Your task to perform on an android device: empty trash in google photos Image 0: 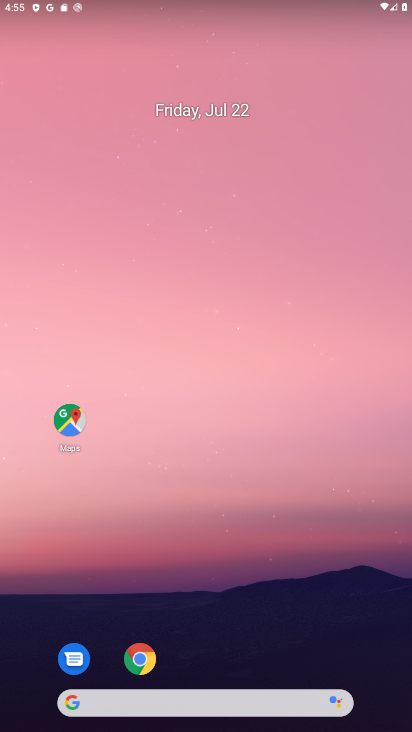
Step 0: press home button
Your task to perform on an android device: empty trash in google photos Image 1: 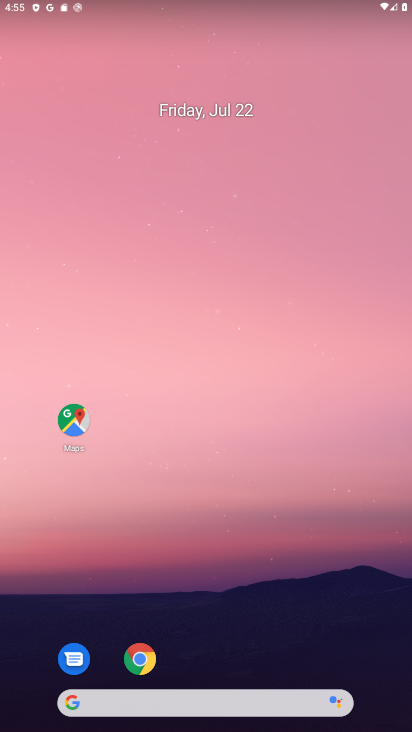
Step 1: drag from (213, 670) to (213, 30)
Your task to perform on an android device: empty trash in google photos Image 2: 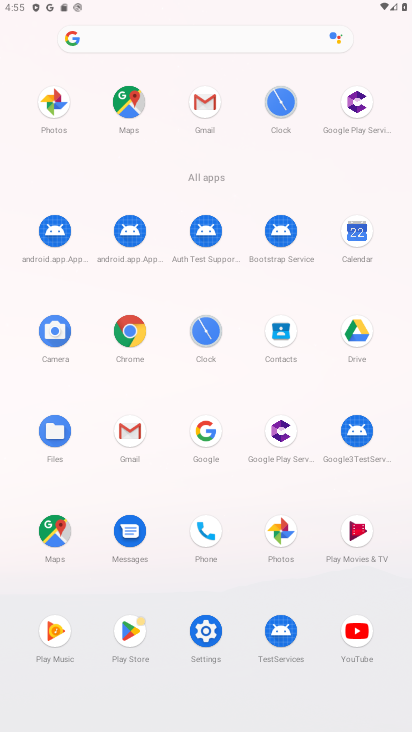
Step 2: click (280, 528)
Your task to perform on an android device: empty trash in google photos Image 3: 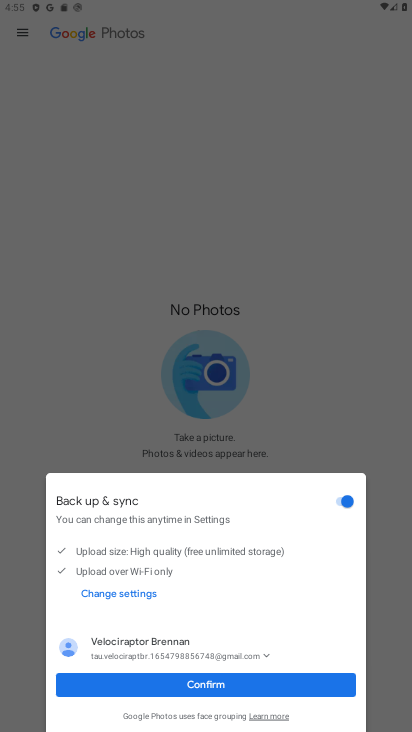
Step 3: click (203, 680)
Your task to perform on an android device: empty trash in google photos Image 4: 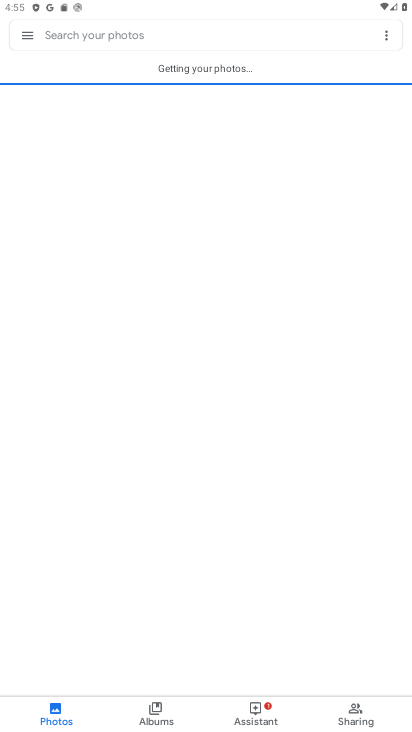
Step 4: click (29, 29)
Your task to perform on an android device: empty trash in google photos Image 5: 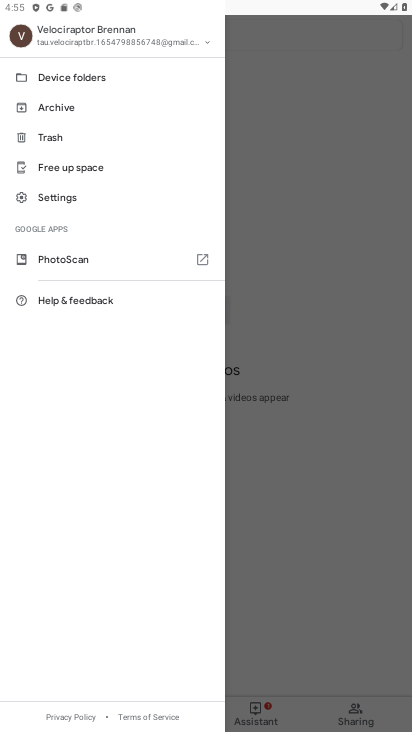
Step 5: click (54, 139)
Your task to perform on an android device: empty trash in google photos Image 6: 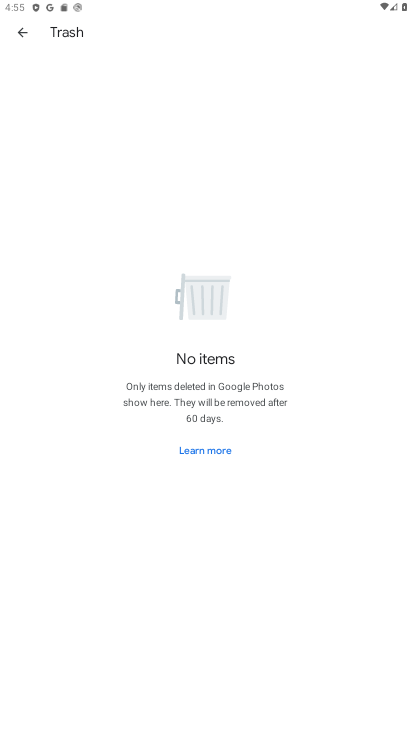
Step 6: task complete